Your task to perform on an android device: Open display settings Image 0: 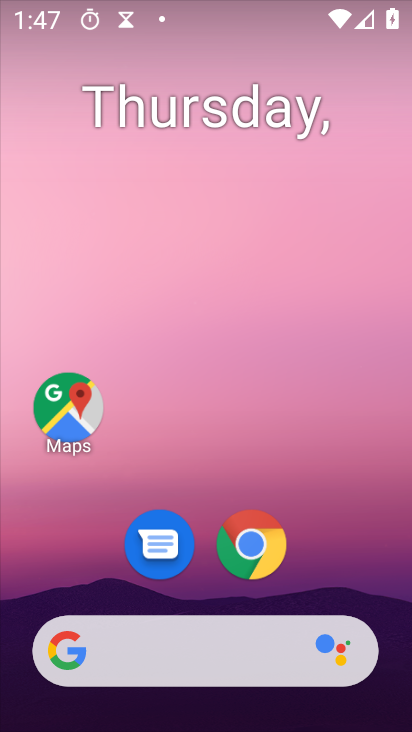
Step 0: drag from (234, 722) to (207, 204)
Your task to perform on an android device: Open display settings Image 1: 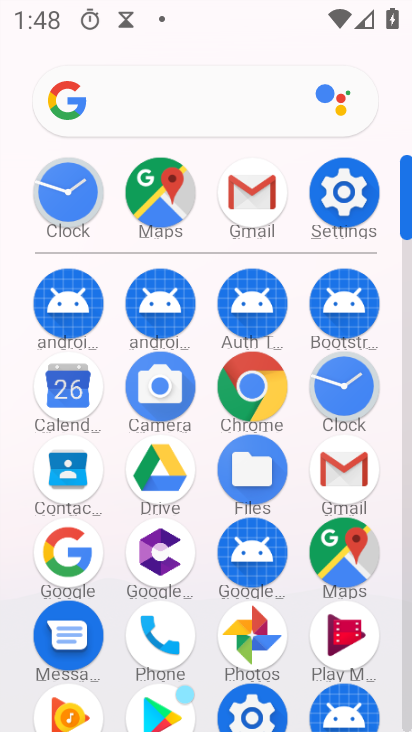
Step 1: click (337, 207)
Your task to perform on an android device: Open display settings Image 2: 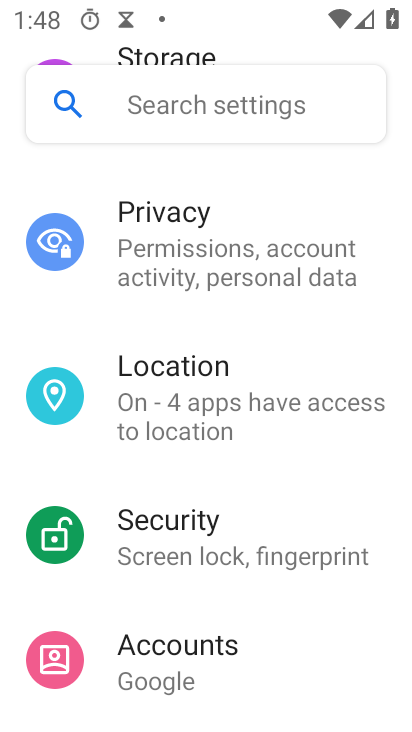
Step 2: drag from (201, 620) to (208, 259)
Your task to perform on an android device: Open display settings Image 3: 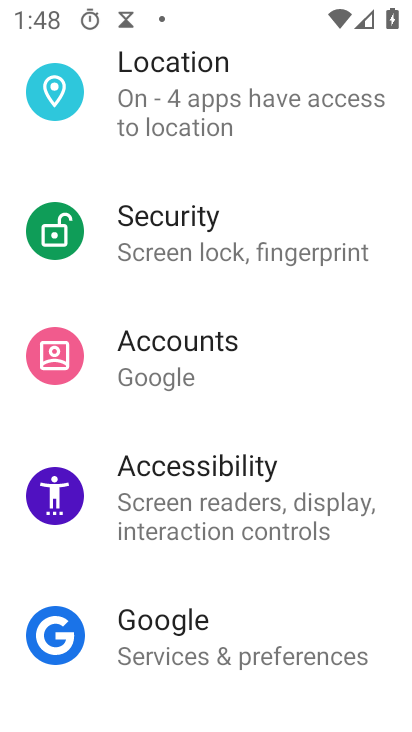
Step 3: drag from (225, 154) to (225, 637)
Your task to perform on an android device: Open display settings Image 4: 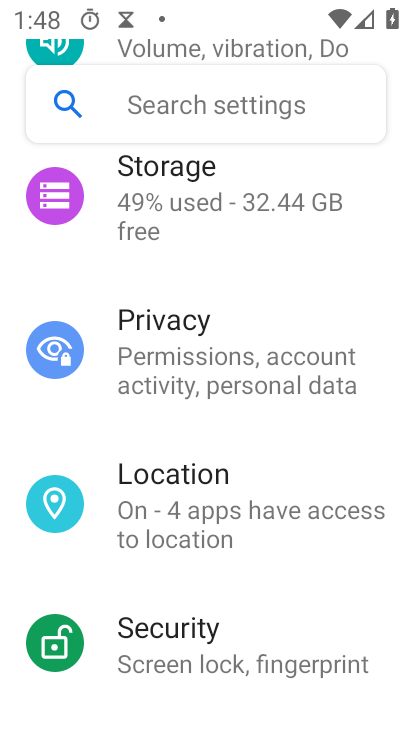
Step 4: drag from (253, 180) to (252, 677)
Your task to perform on an android device: Open display settings Image 5: 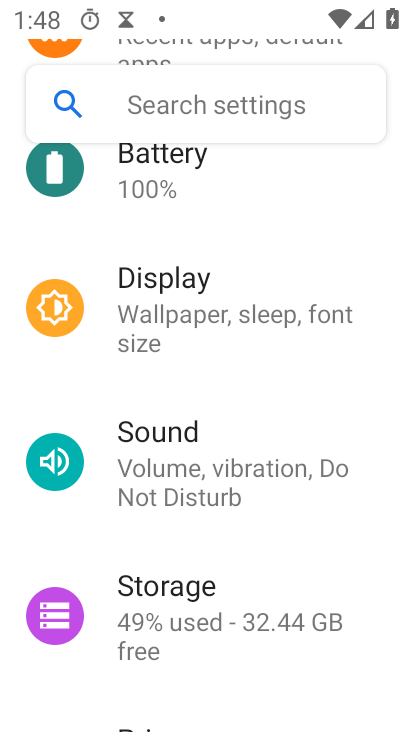
Step 5: click (136, 292)
Your task to perform on an android device: Open display settings Image 6: 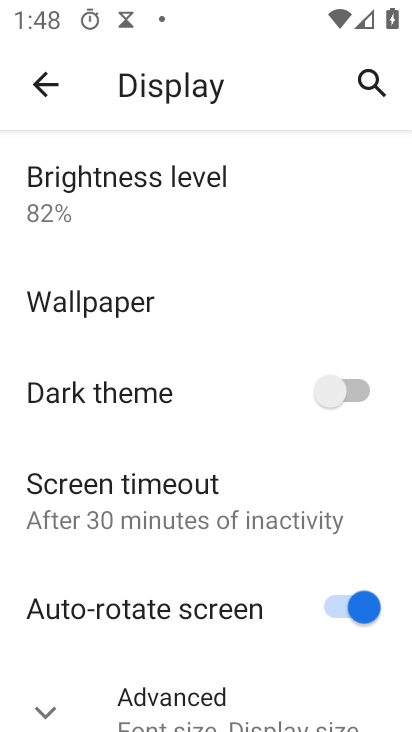
Step 6: task complete